Your task to perform on an android device: Open calendar and show me the second week of next month Image 0: 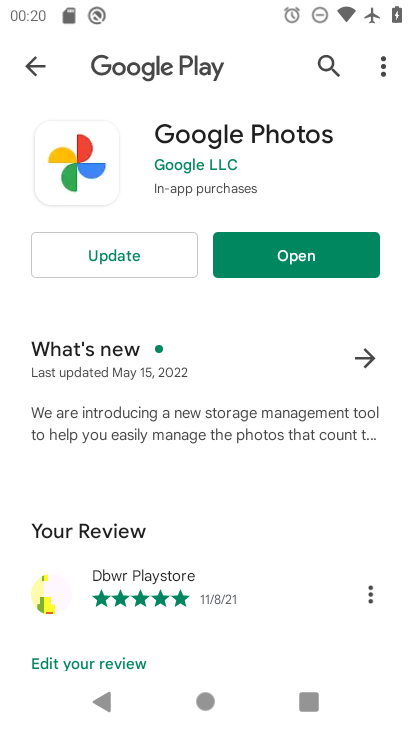
Step 0: press home button
Your task to perform on an android device: Open calendar and show me the second week of next month Image 1: 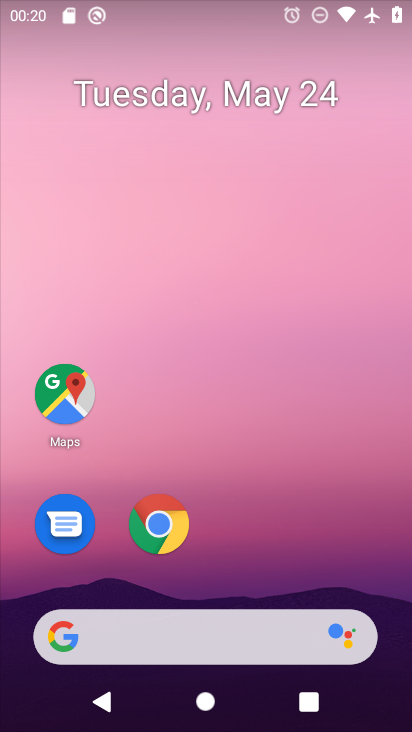
Step 1: drag from (221, 569) to (245, 212)
Your task to perform on an android device: Open calendar and show me the second week of next month Image 2: 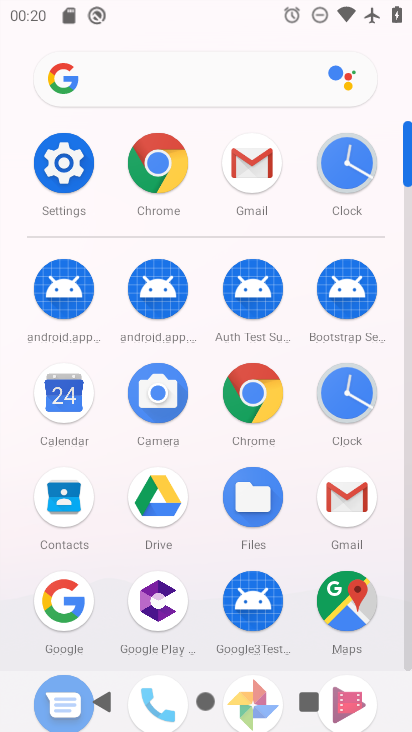
Step 2: click (89, 380)
Your task to perform on an android device: Open calendar and show me the second week of next month Image 3: 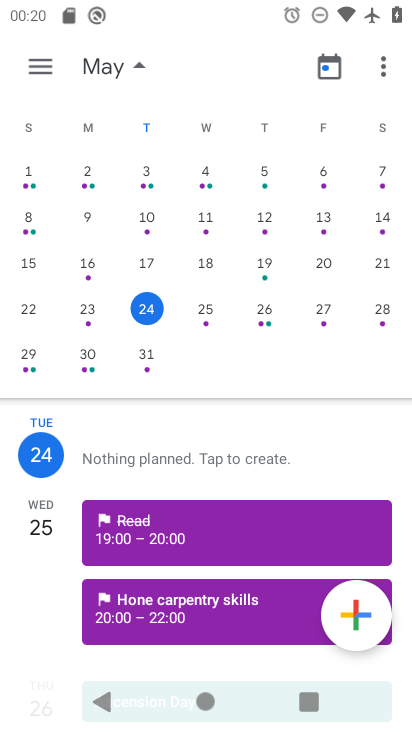
Step 3: drag from (345, 258) to (23, 258)
Your task to perform on an android device: Open calendar and show me the second week of next month Image 4: 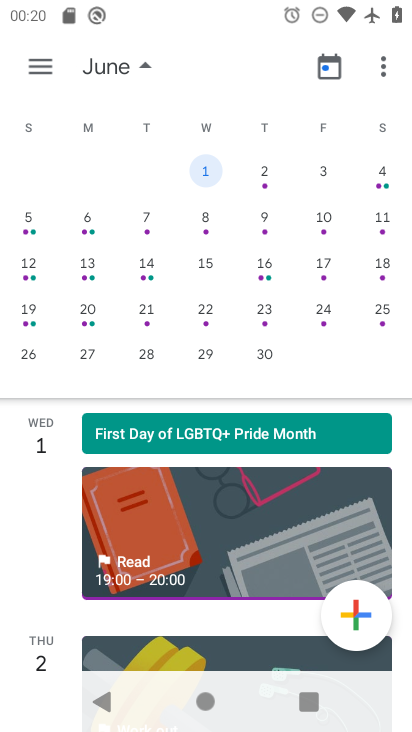
Step 4: click (22, 226)
Your task to perform on an android device: Open calendar and show me the second week of next month Image 5: 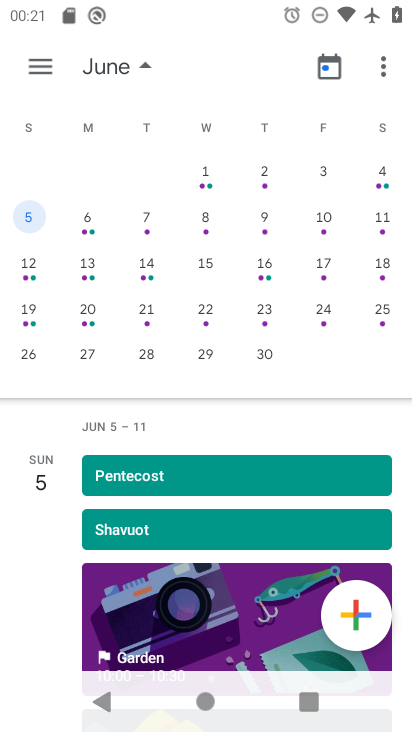
Step 5: task complete